Your task to perform on an android device: turn smart compose on in the gmail app Image 0: 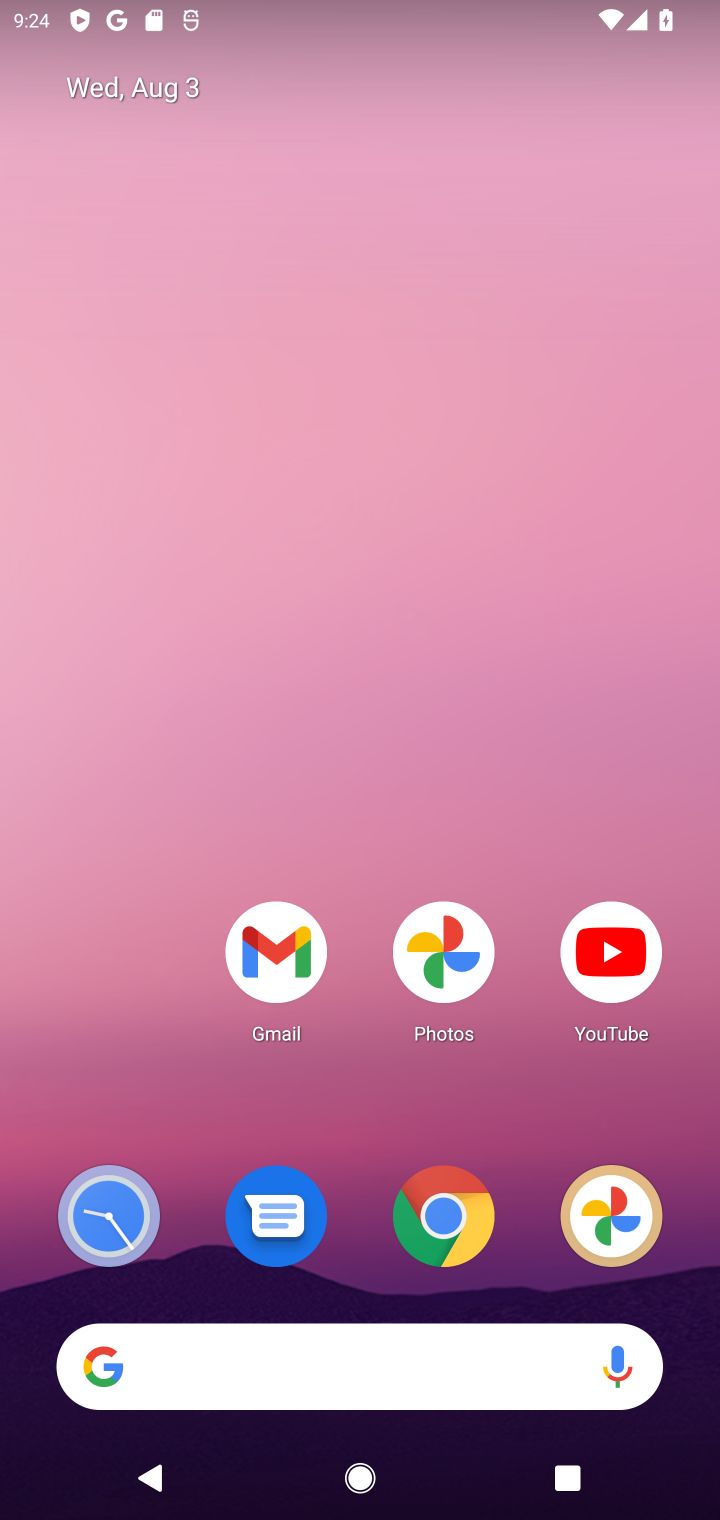
Step 0: drag from (188, 738) to (357, 65)
Your task to perform on an android device: turn smart compose on in the gmail app Image 1: 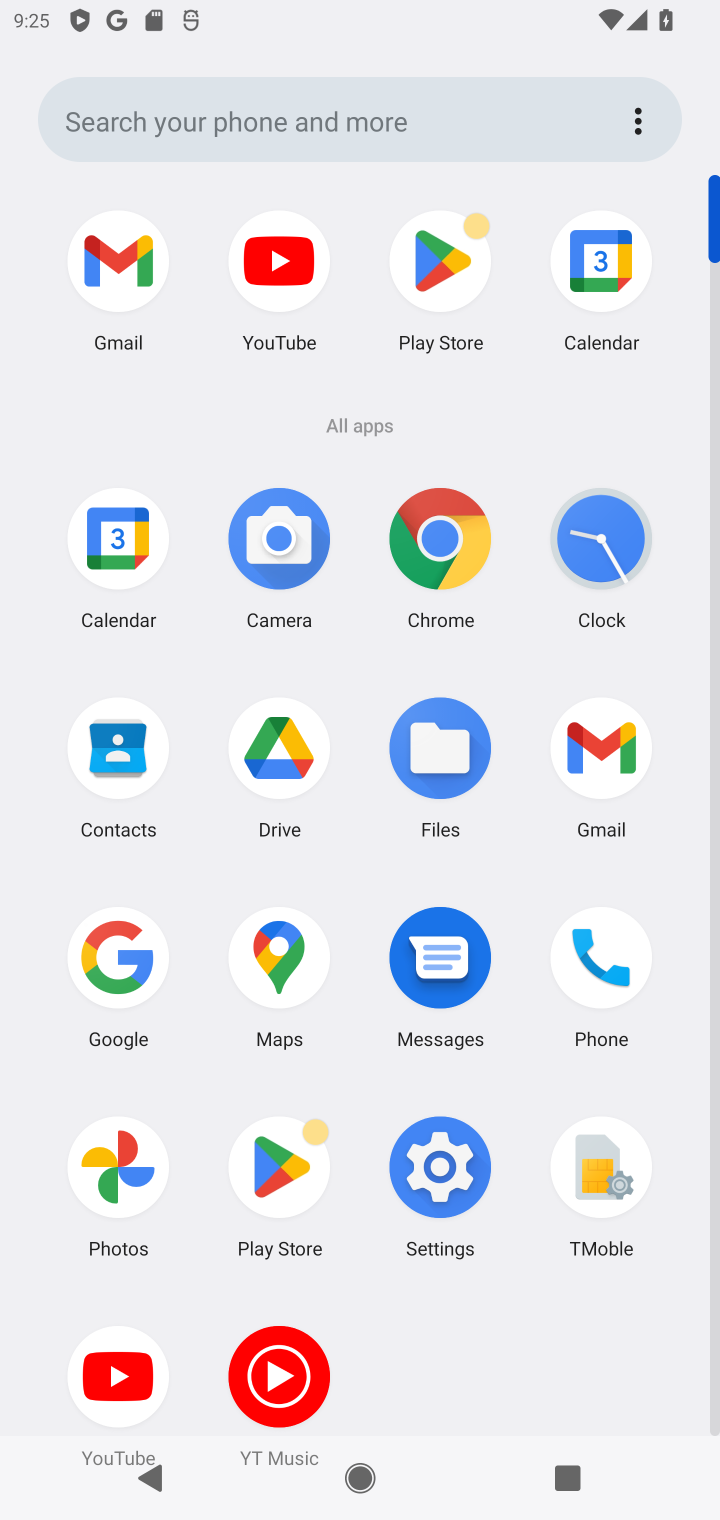
Step 1: click (616, 748)
Your task to perform on an android device: turn smart compose on in the gmail app Image 2: 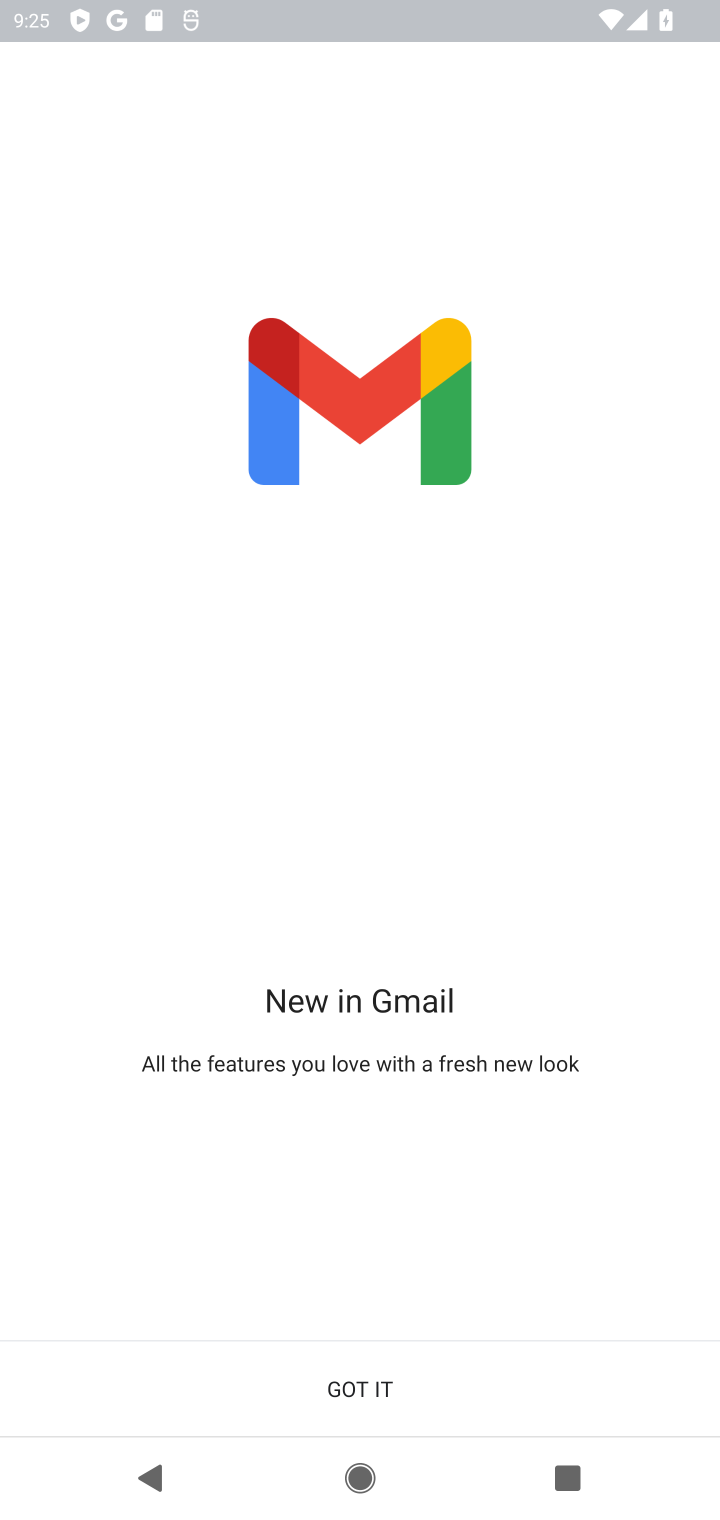
Step 2: click (344, 1363)
Your task to perform on an android device: turn smart compose on in the gmail app Image 3: 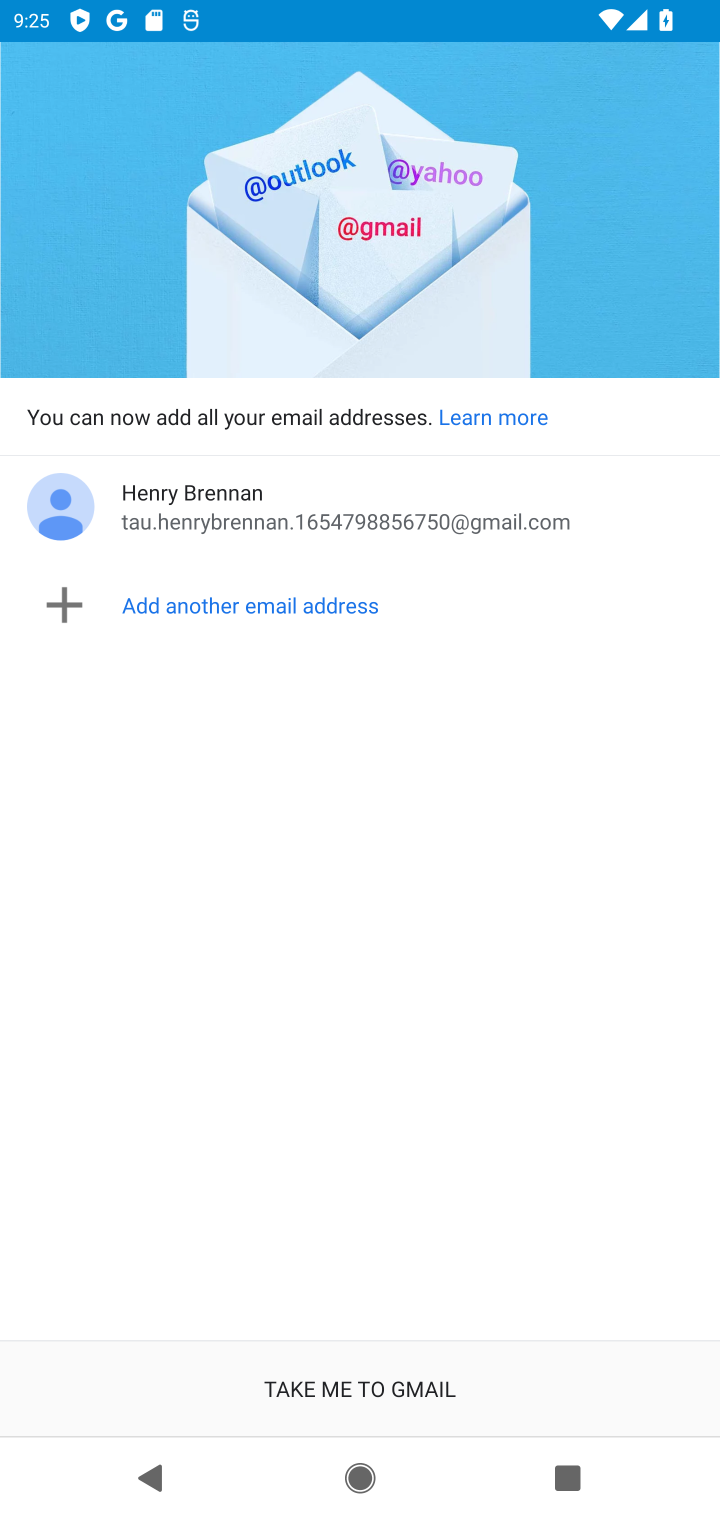
Step 3: click (383, 1402)
Your task to perform on an android device: turn smart compose on in the gmail app Image 4: 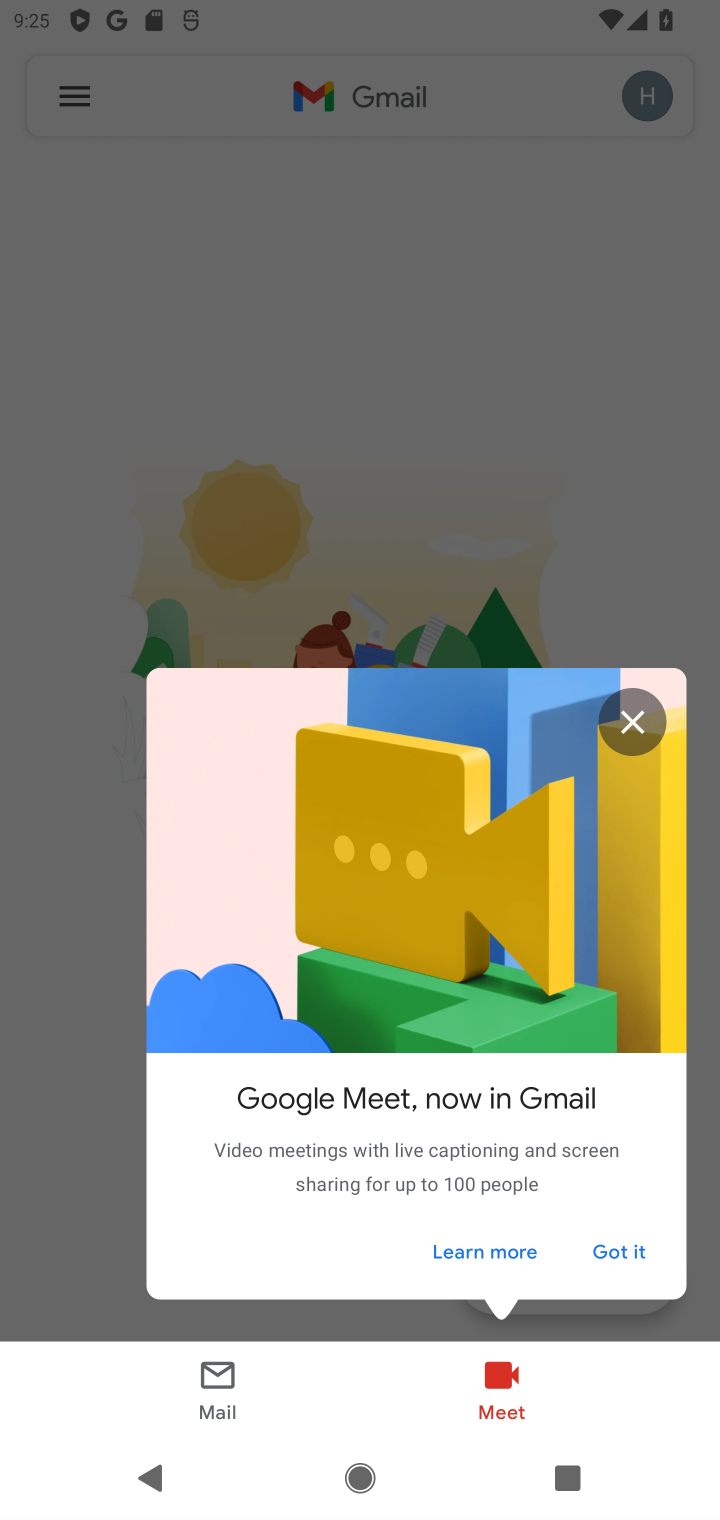
Step 4: click (646, 730)
Your task to perform on an android device: turn smart compose on in the gmail app Image 5: 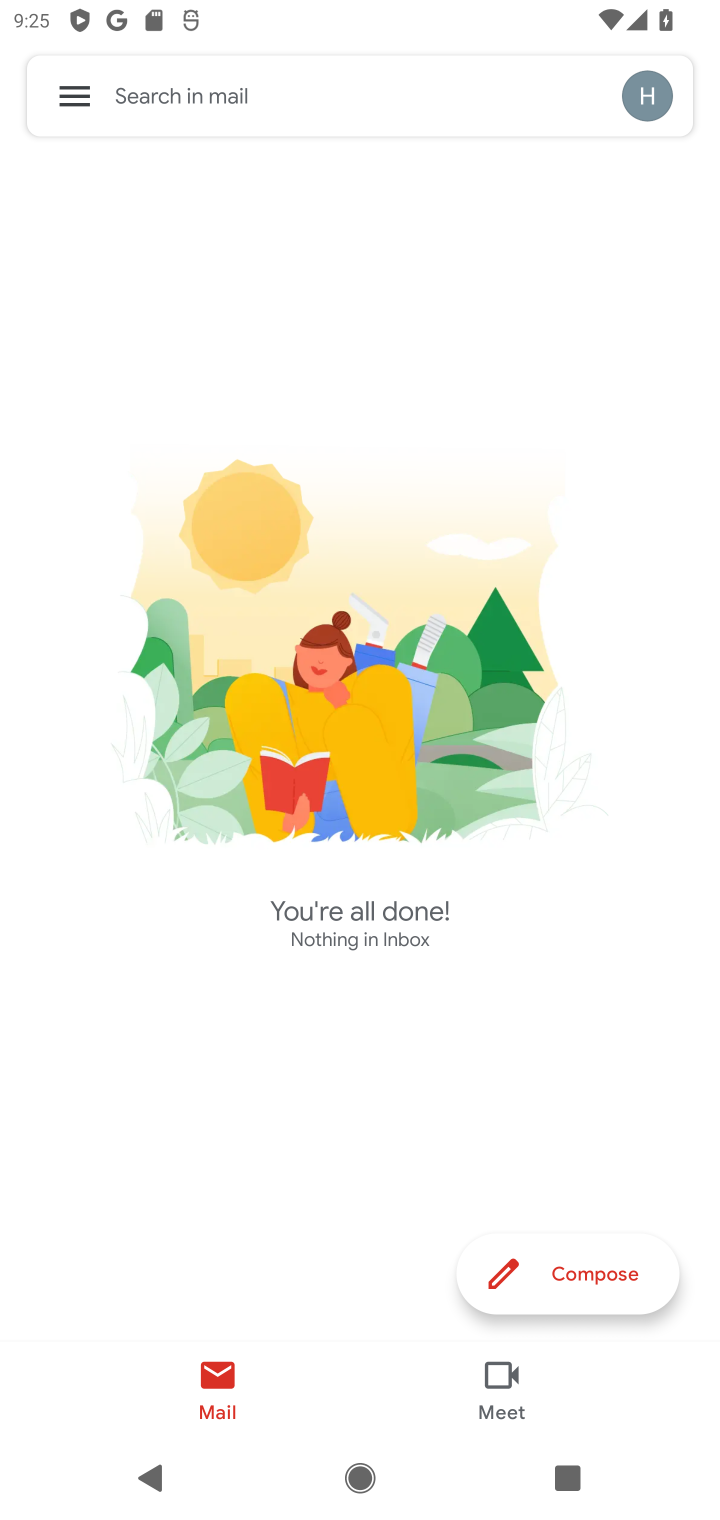
Step 5: click (88, 86)
Your task to perform on an android device: turn smart compose on in the gmail app Image 6: 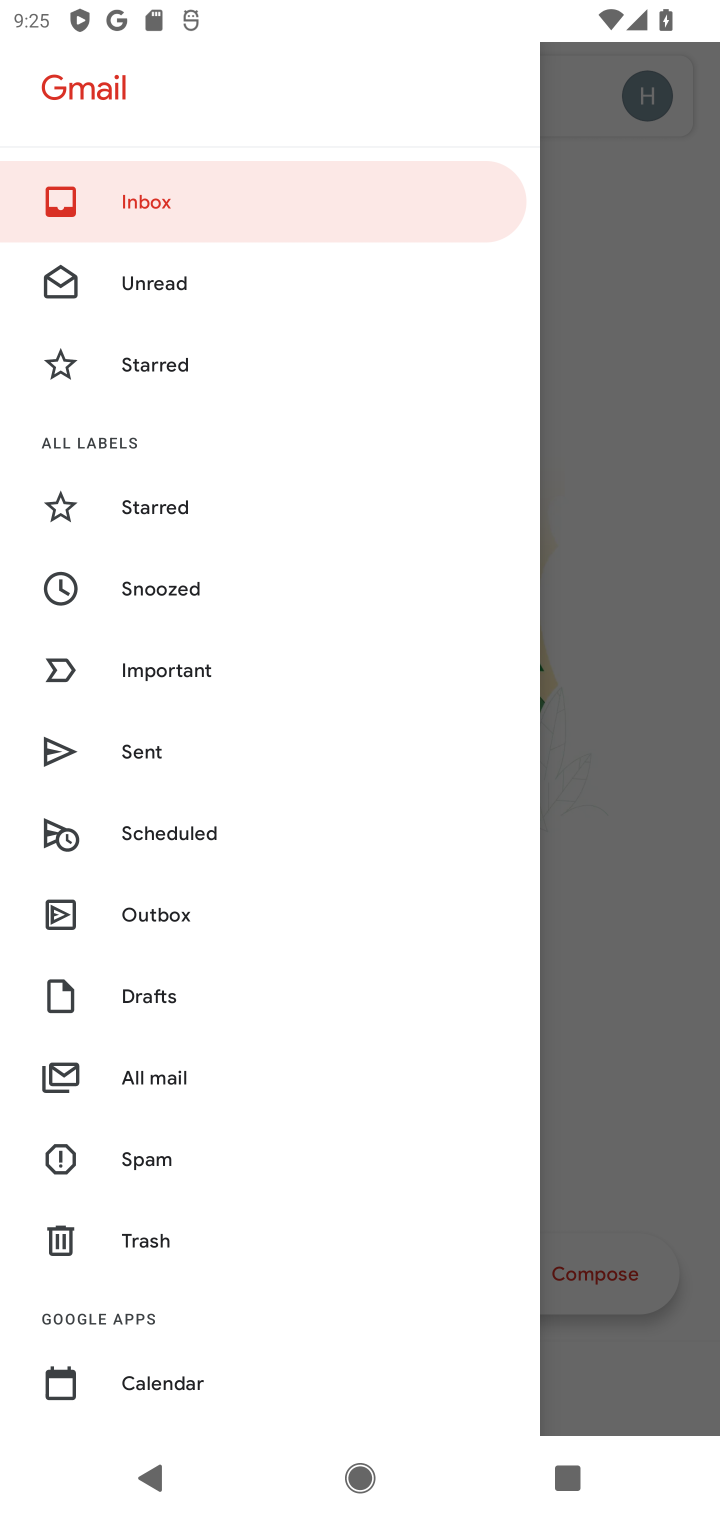
Step 6: drag from (336, 1172) to (409, 284)
Your task to perform on an android device: turn smart compose on in the gmail app Image 7: 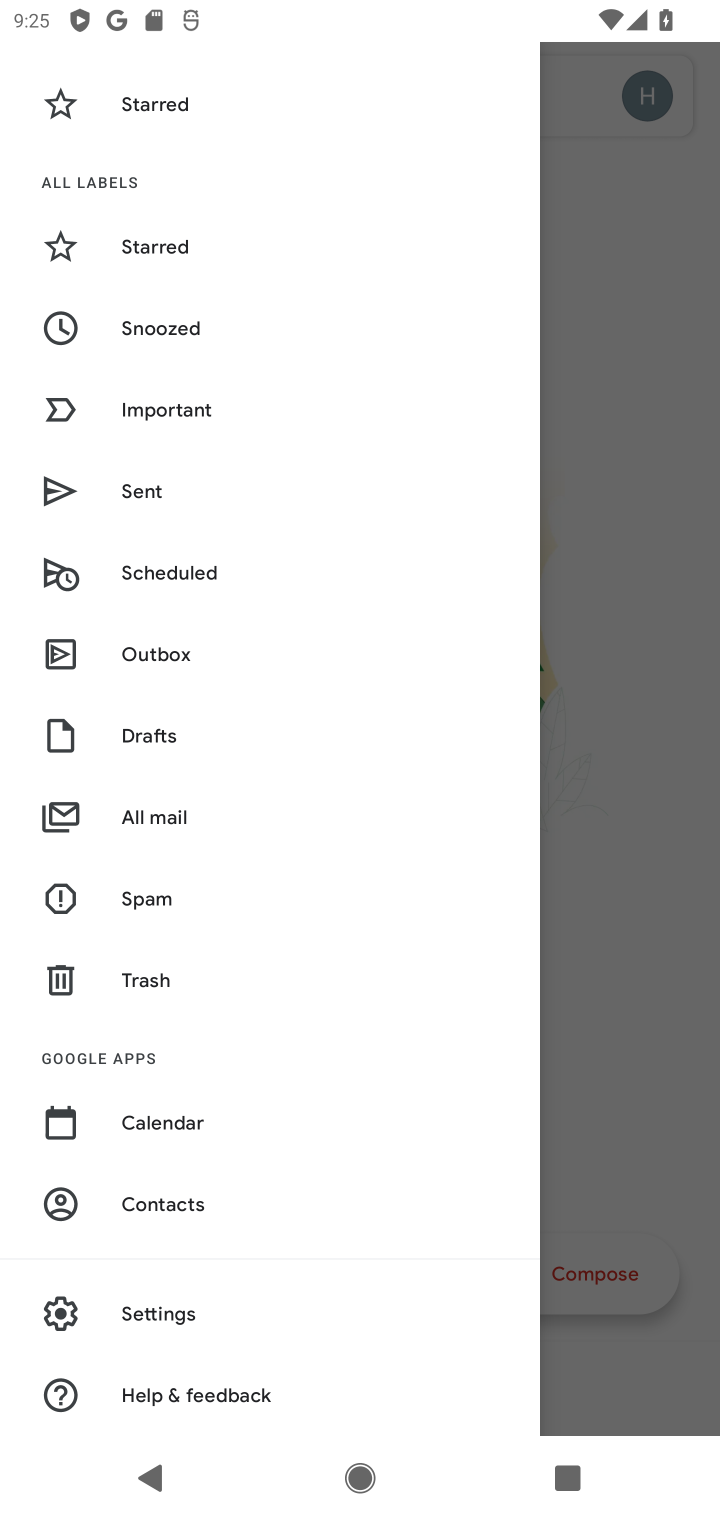
Step 7: click (170, 1304)
Your task to perform on an android device: turn smart compose on in the gmail app Image 8: 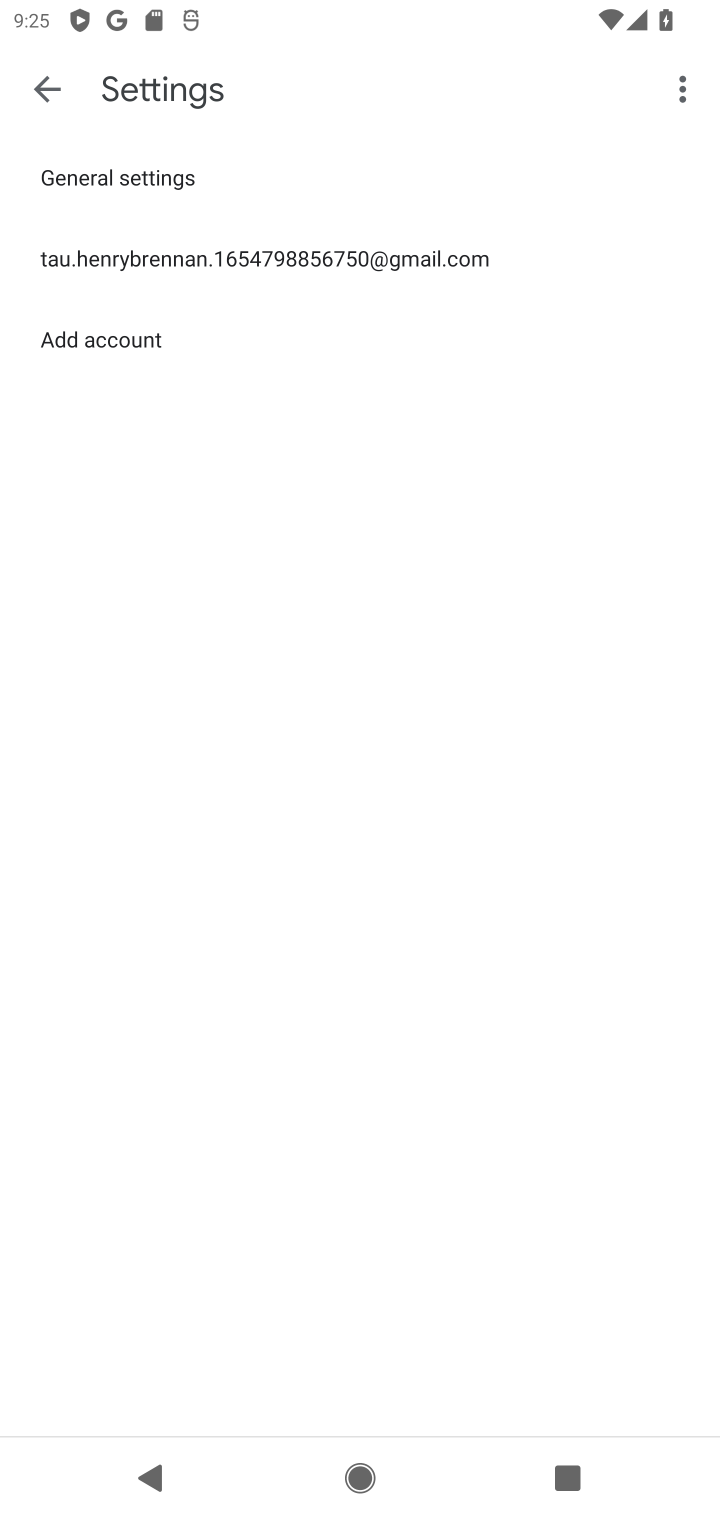
Step 8: click (285, 255)
Your task to perform on an android device: turn smart compose on in the gmail app Image 9: 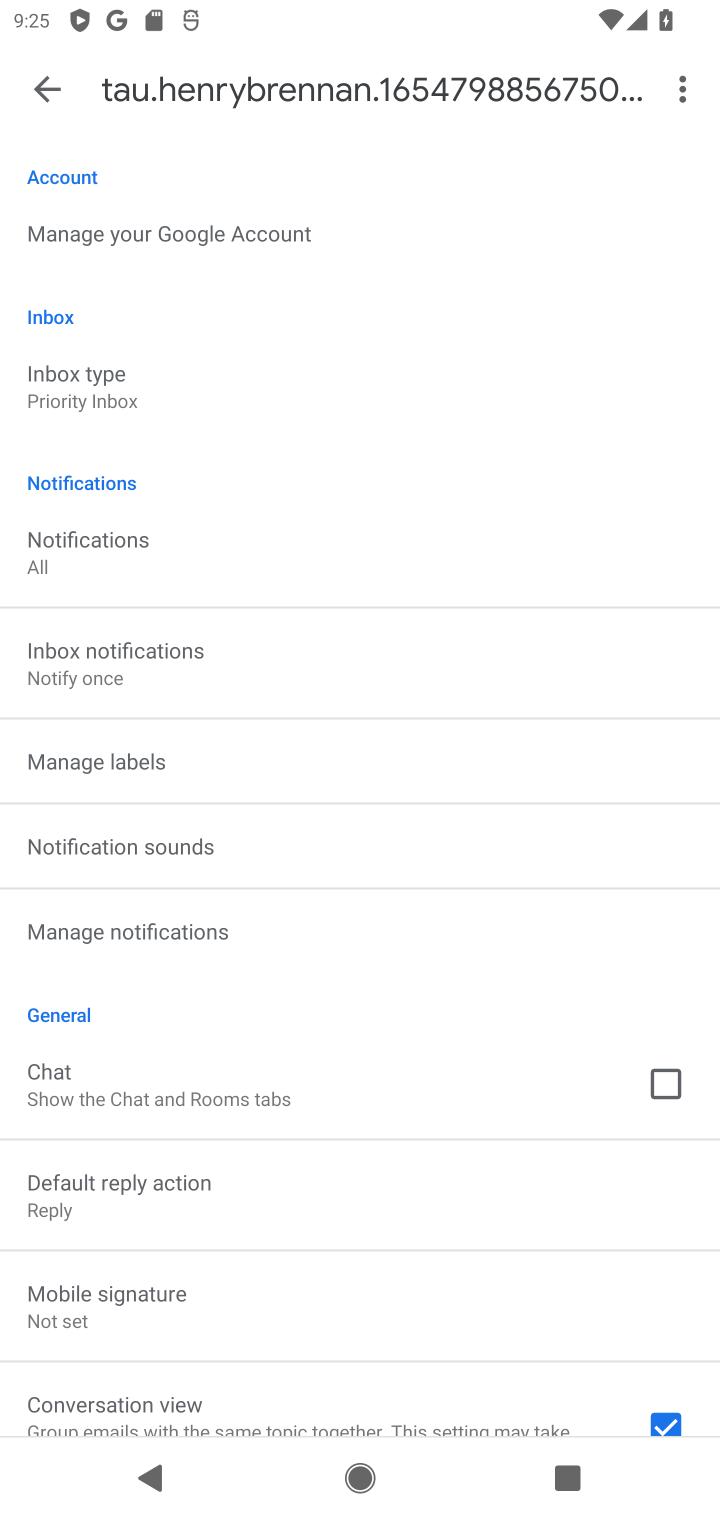
Step 9: task complete